Your task to perform on an android device: When is my next meeting? Image 0: 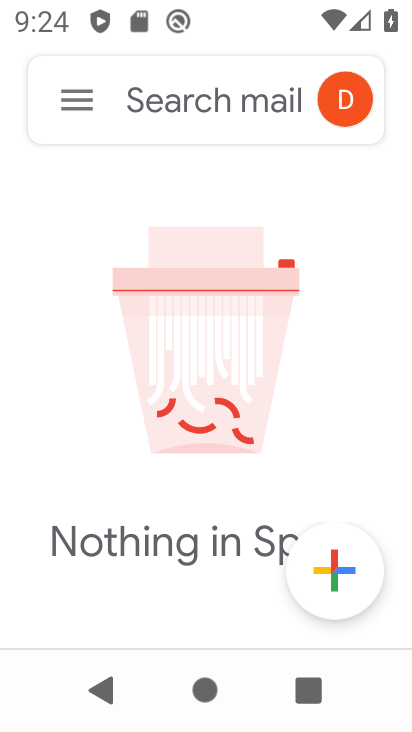
Step 0: press back button
Your task to perform on an android device: When is my next meeting? Image 1: 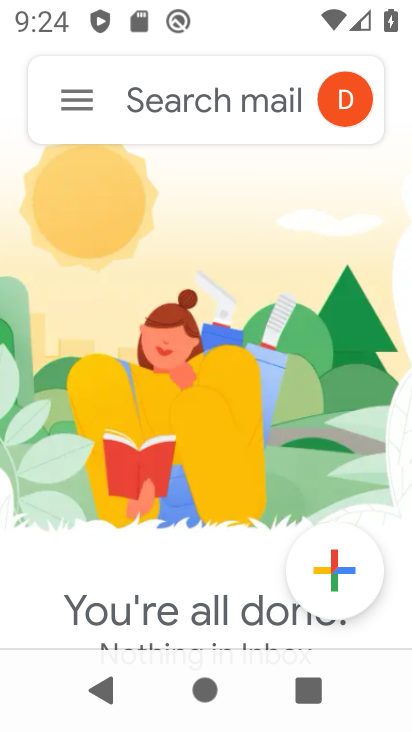
Step 1: press back button
Your task to perform on an android device: When is my next meeting? Image 2: 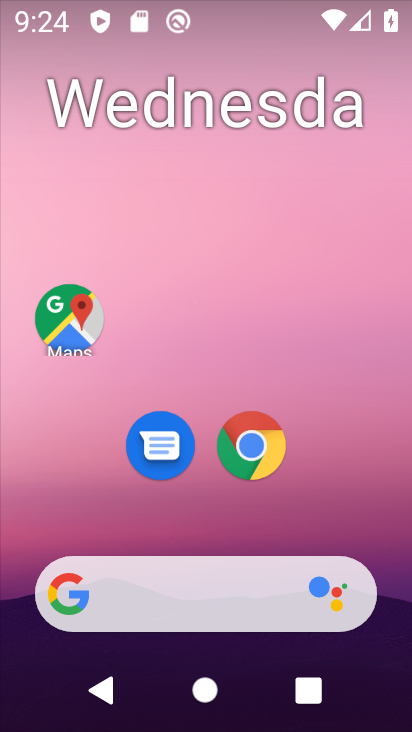
Step 2: drag from (172, 563) to (297, 3)
Your task to perform on an android device: When is my next meeting? Image 3: 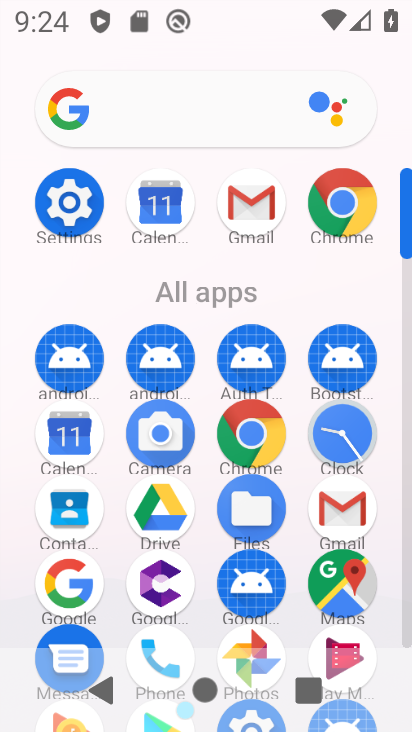
Step 3: click (79, 436)
Your task to perform on an android device: When is my next meeting? Image 4: 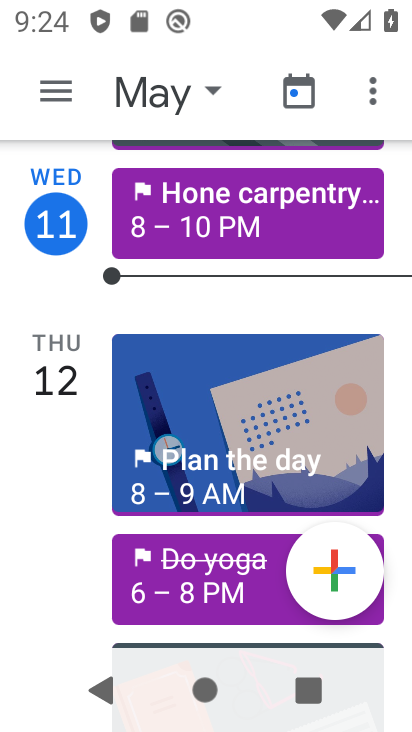
Step 4: task complete